Your task to perform on an android device: toggle priority inbox in the gmail app Image 0: 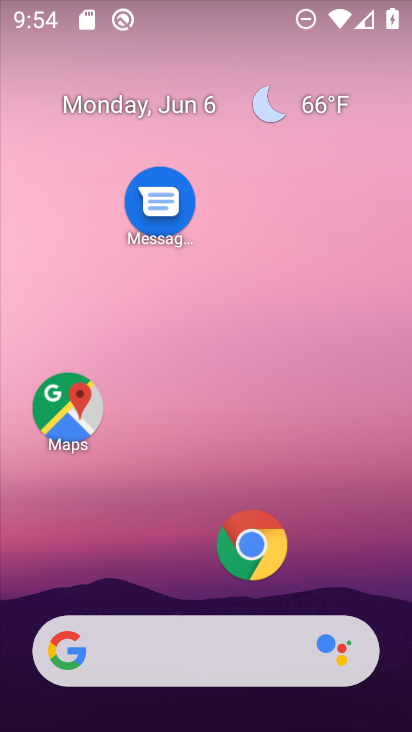
Step 0: drag from (155, 587) to (120, 303)
Your task to perform on an android device: toggle priority inbox in the gmail app Image 1: 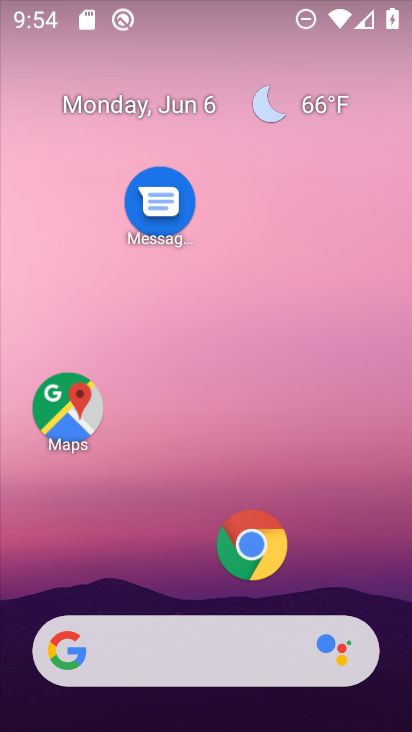
Step 1: drag from (188, 595) to (157, 207)
Your task to perform on an android device: toggle priority inbox in the gmail app Image 2: 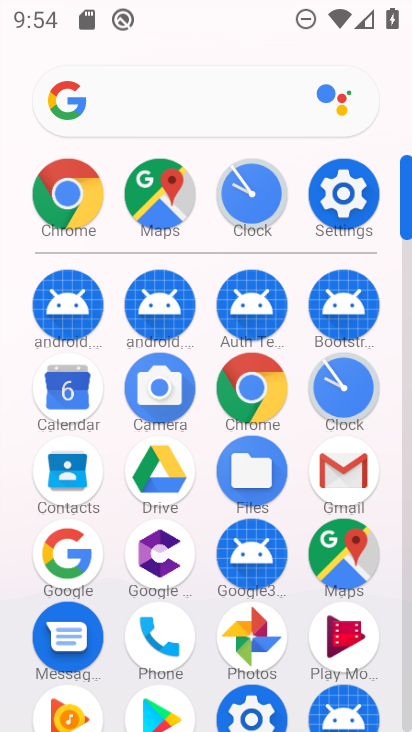
Step 2: click (333, 466)
Your task to perform on an android device: toggle priority inbox in the gmail app Image 3: 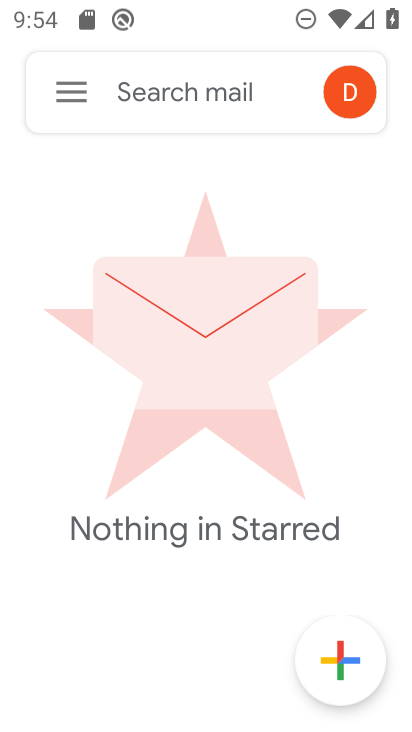
Step 3: click (69, 102)
Your task to perform on an android device: toggle priority inbox in the gmail app Image 4: 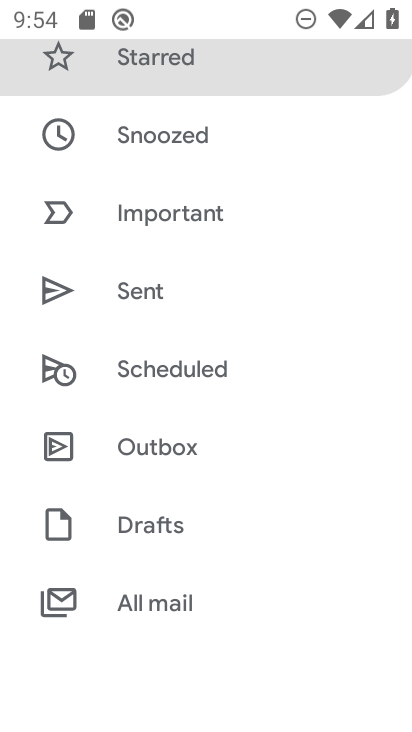
Step 4: drag from (198, 633) to (221, 251)
Your task to perform on an android device: toggle priority inbox in the gmail app Image 5: 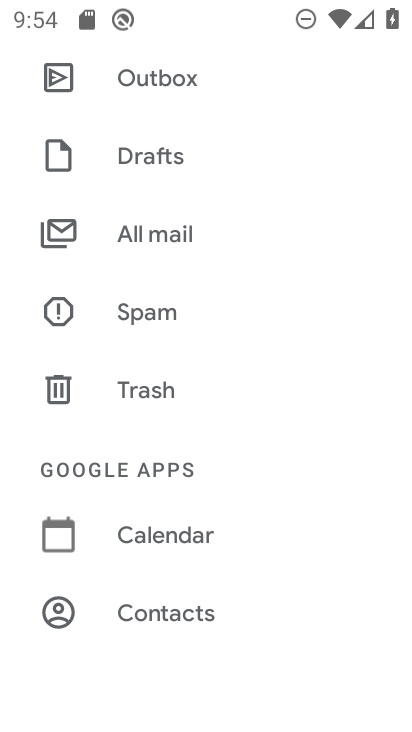
Step 5: drag from (165, 640) to (146, 315)
Your task to perform on an android device: toggle priority inbox in the gmail app Image 6: 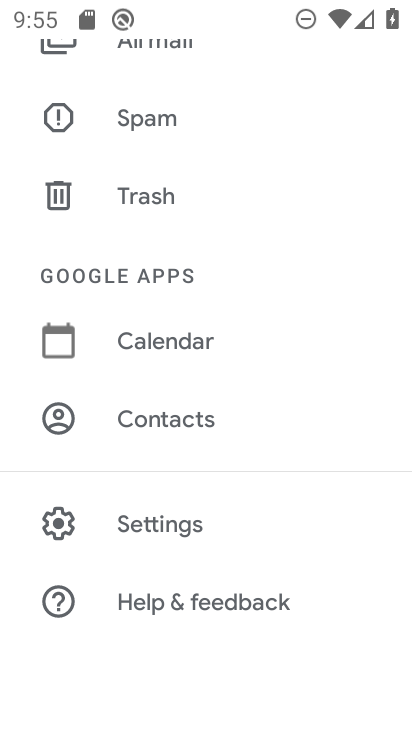
Step 6: click (172, 527)
Your task to perform on an android device: toggle priority inbox in the gmail app Image 7: 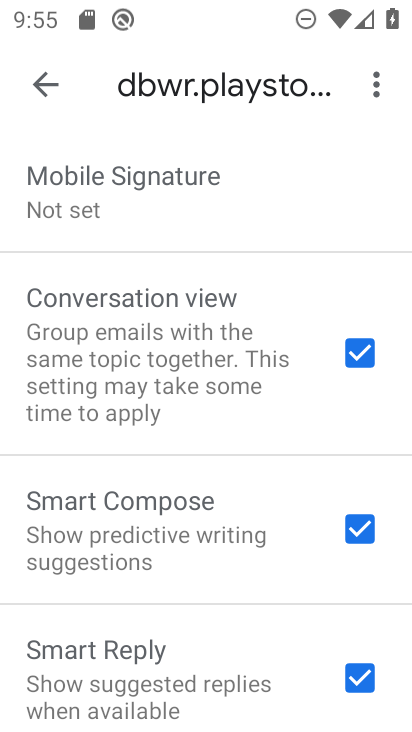
Step 7: drag from (178, 283) to (249, 691)
Your task to perform on an android device: toggle priority inbox in the gmail app Image 8: 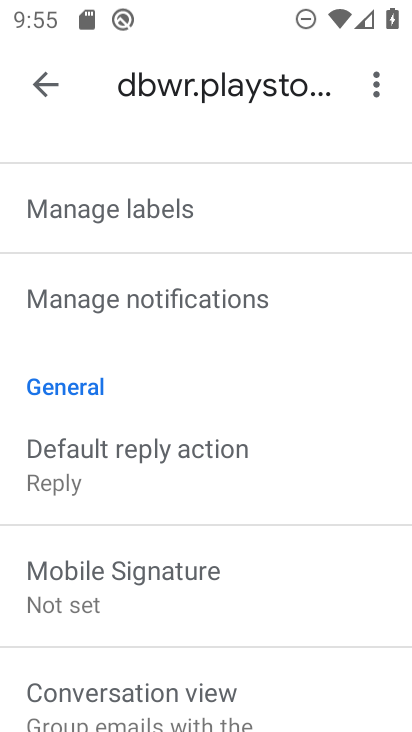
Step 8: drag from (143, 380) to (178, 725)
Your task to perform on an android device: toggle priority inbox in the gmail app Image 9: 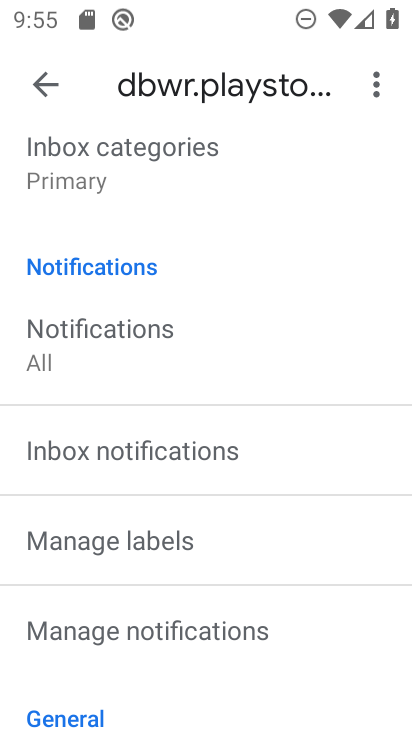
Step 9: drag from (71, 236) to (138, 634)
Your task to perform on an android device: toggle priority inbox in the gmail app Image 10: 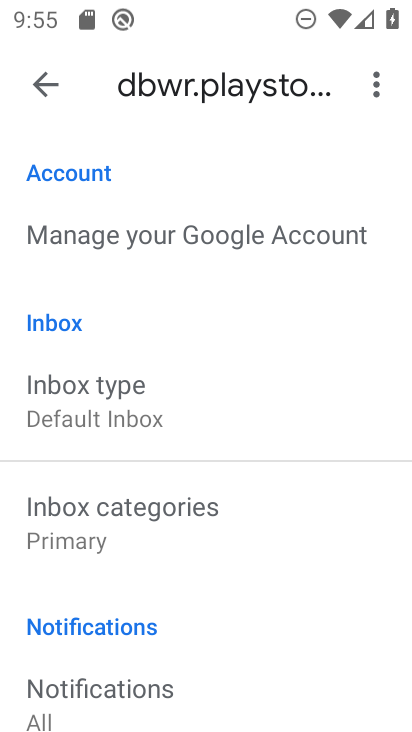
Step 10: click (146, 404)
Your task to perform on an android device: toggle priority inbox in the gmail app Image 11: 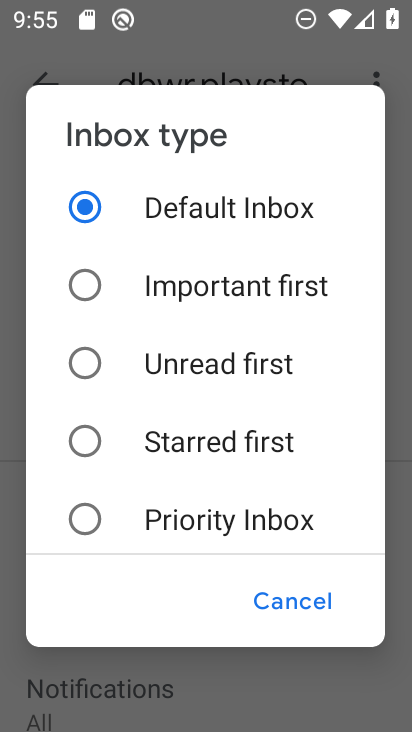
Step 11: click (99, 525)
Your task to perform on an android device: toggle priority inbox in the gmail app Image 12: 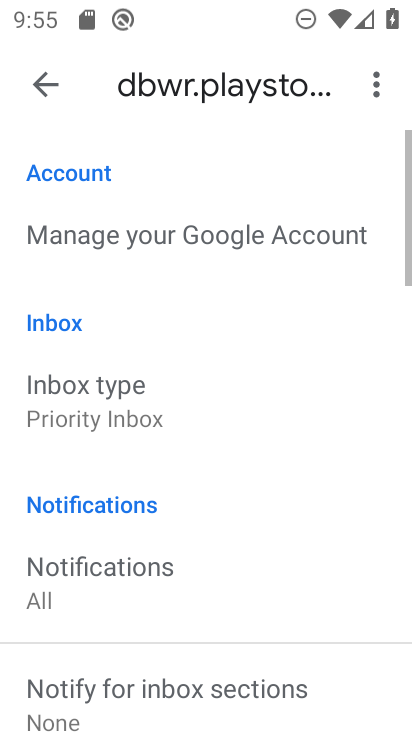
Step 12: task complete